Your task to perform on an android device: turn off sleep mode Image 0: 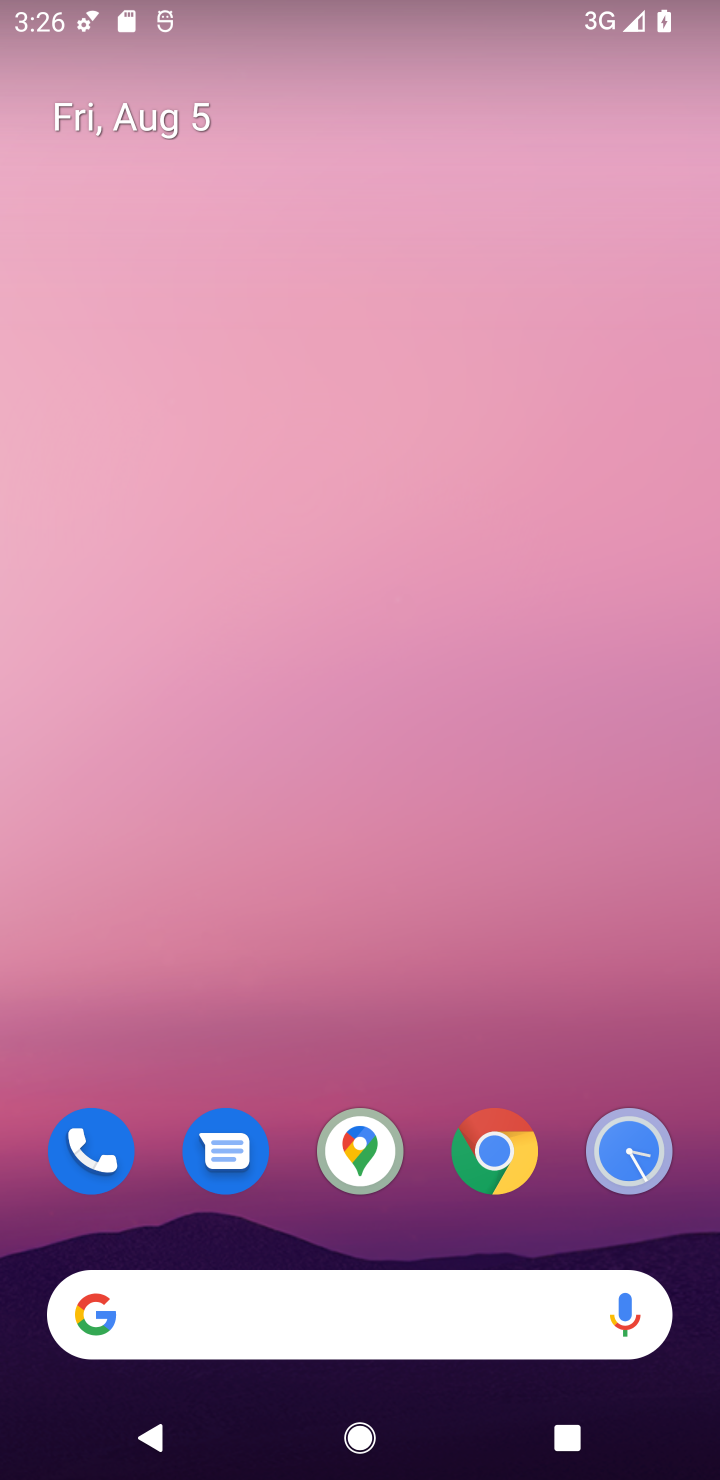
Step 0: drag from (672, 1068) to (693, 393)
Your task to perform on an android device: turn off sleep mode Image 1: 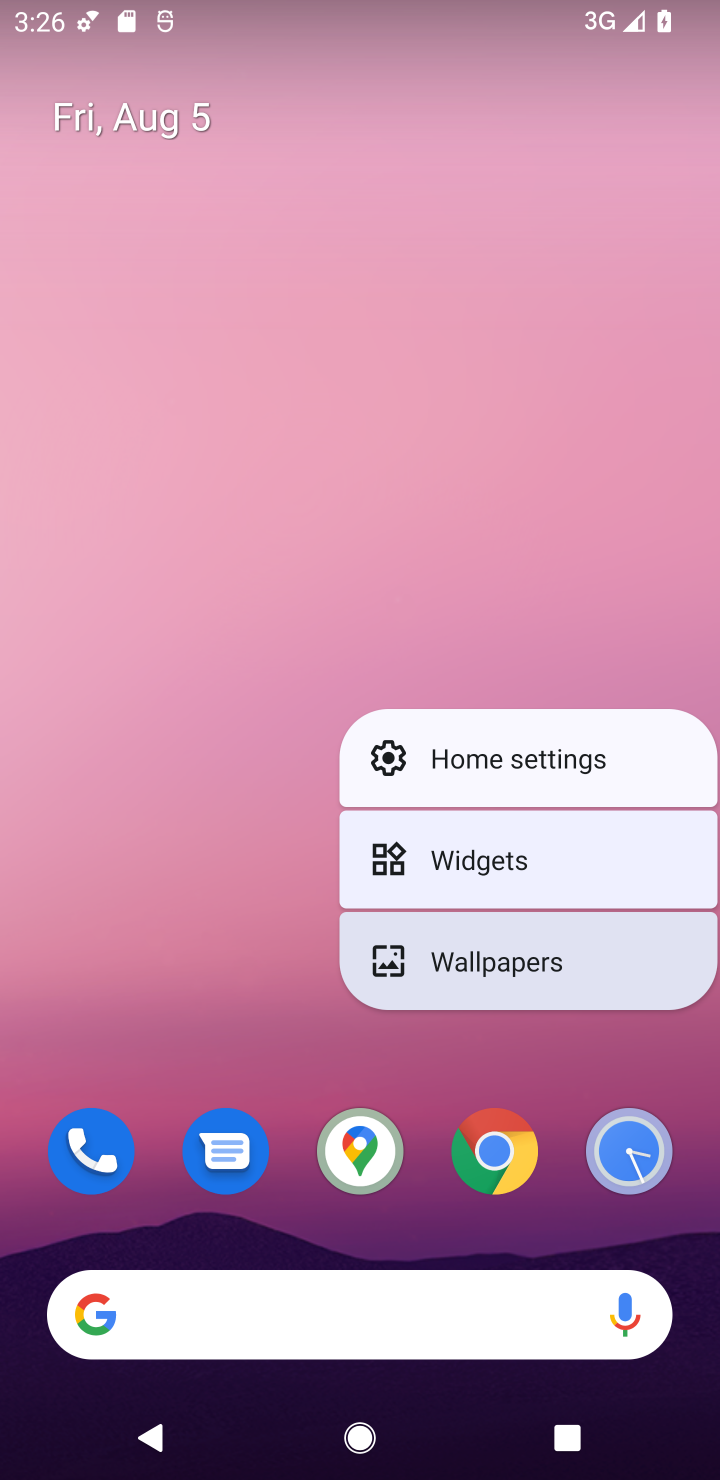
Step 1: click (690, 398)
Your task to perform on an android device: turn off sleep mode Image 2: 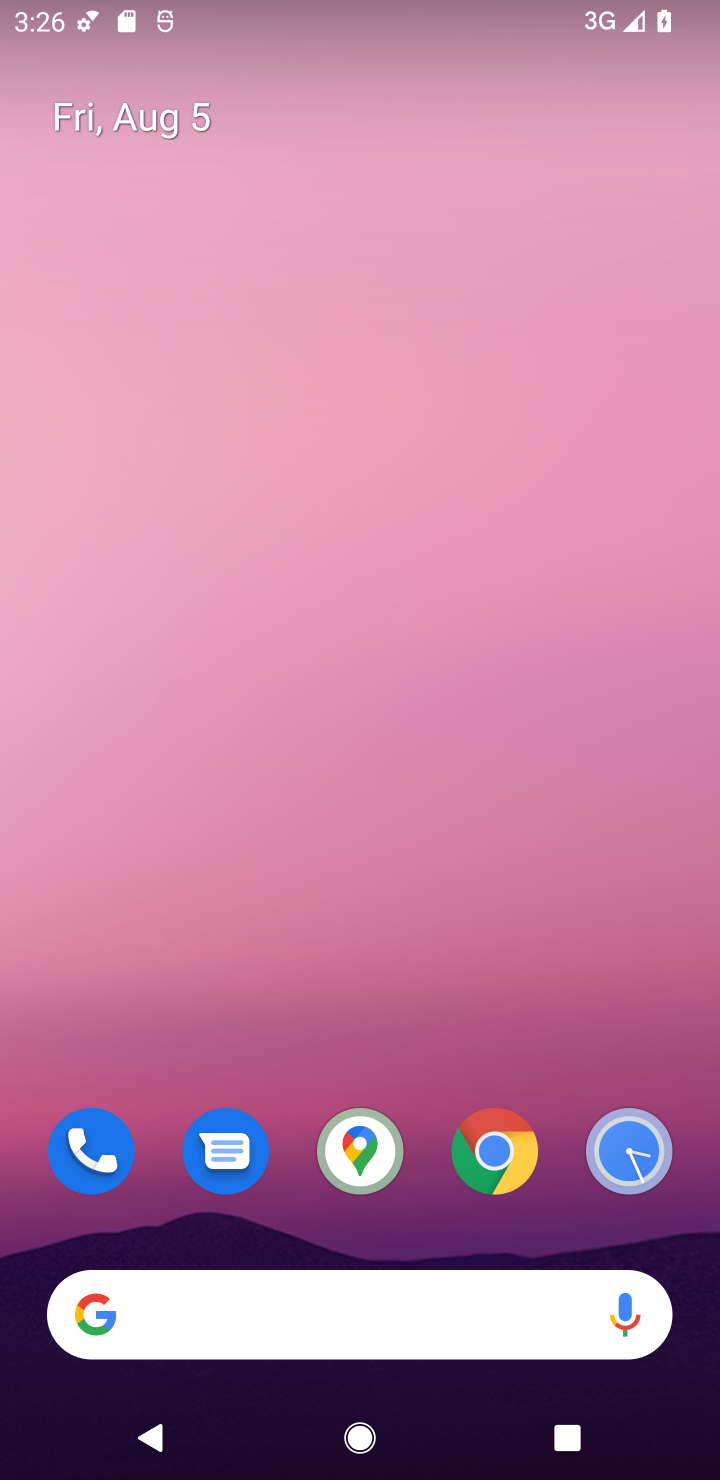
Step 2: drag from (304, 1182) to (394, 167)
Your task to perform on an android device: turn off sleep mode Image 3: 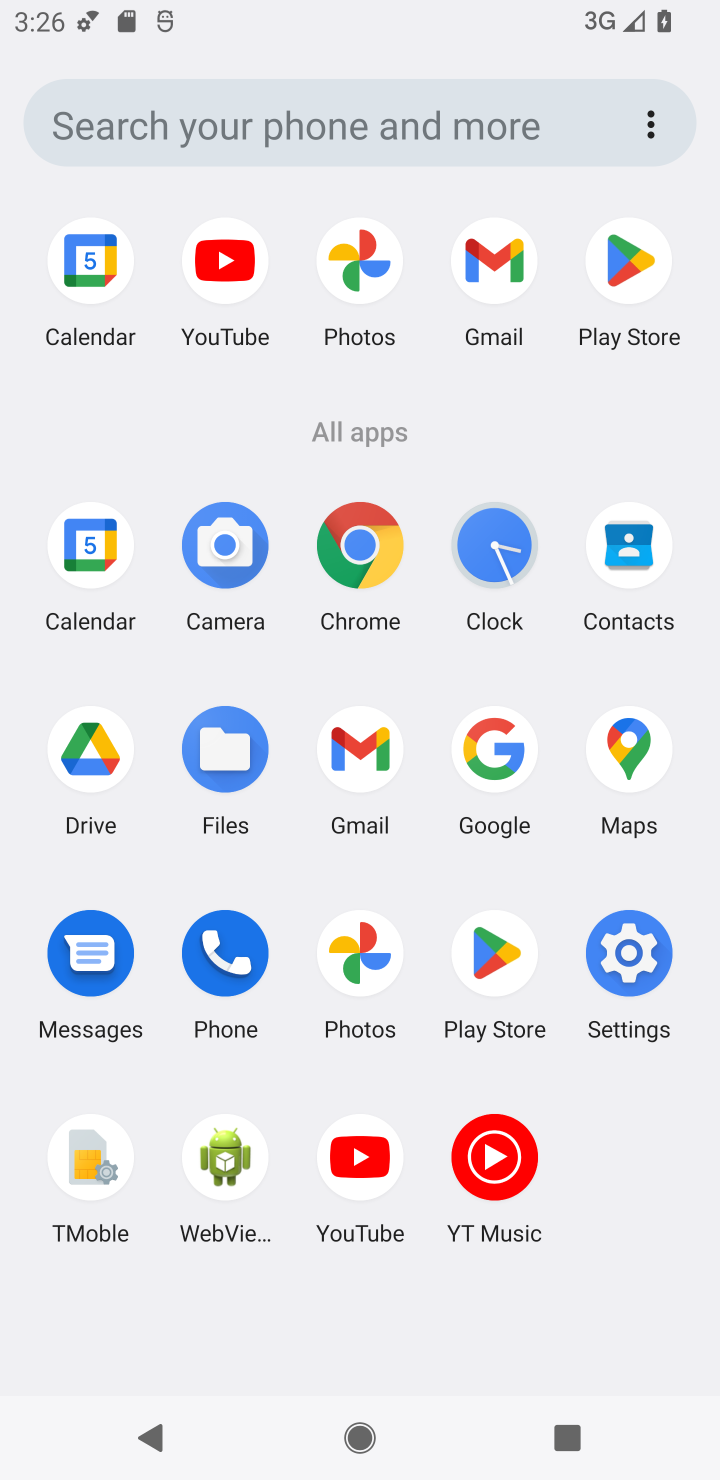
Step 3: click (660, 982)
Your task to perform on an android device: turn off sleep mode Image 4: 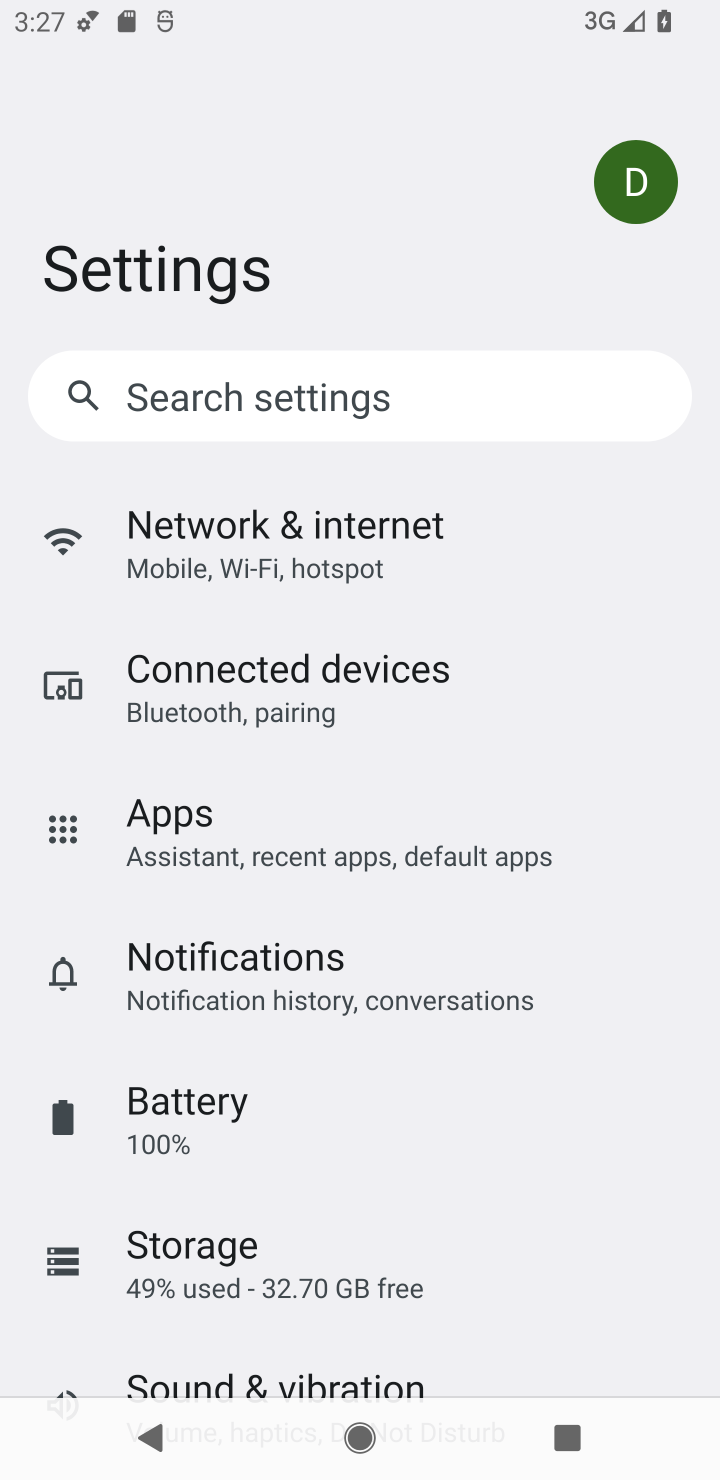
Step 4: drag from (364, 1180) to (377, 411)
Your task to perform on an android device: turn off sleep mode Image 5: 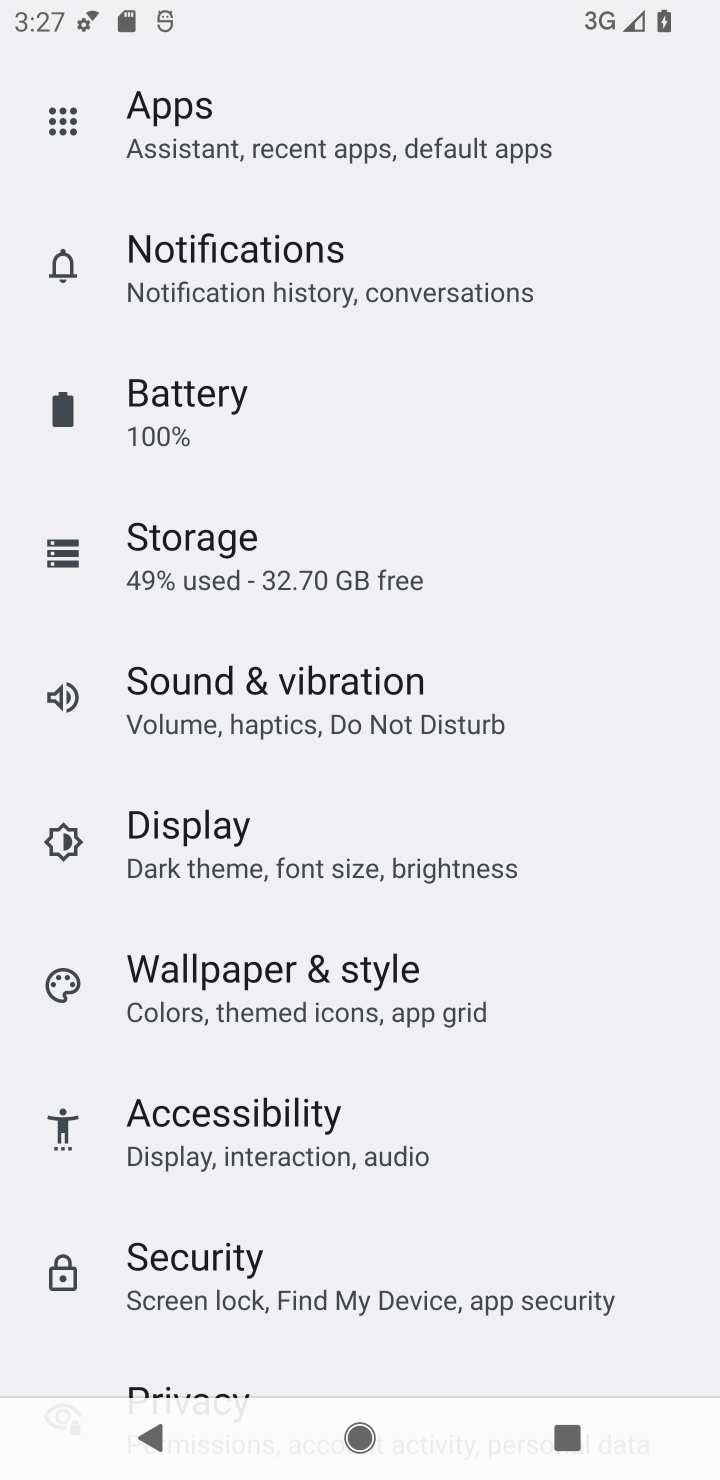
Step 5: click (149, 835)
Your task to perform on an android device: turn off sleep mode Image 6: 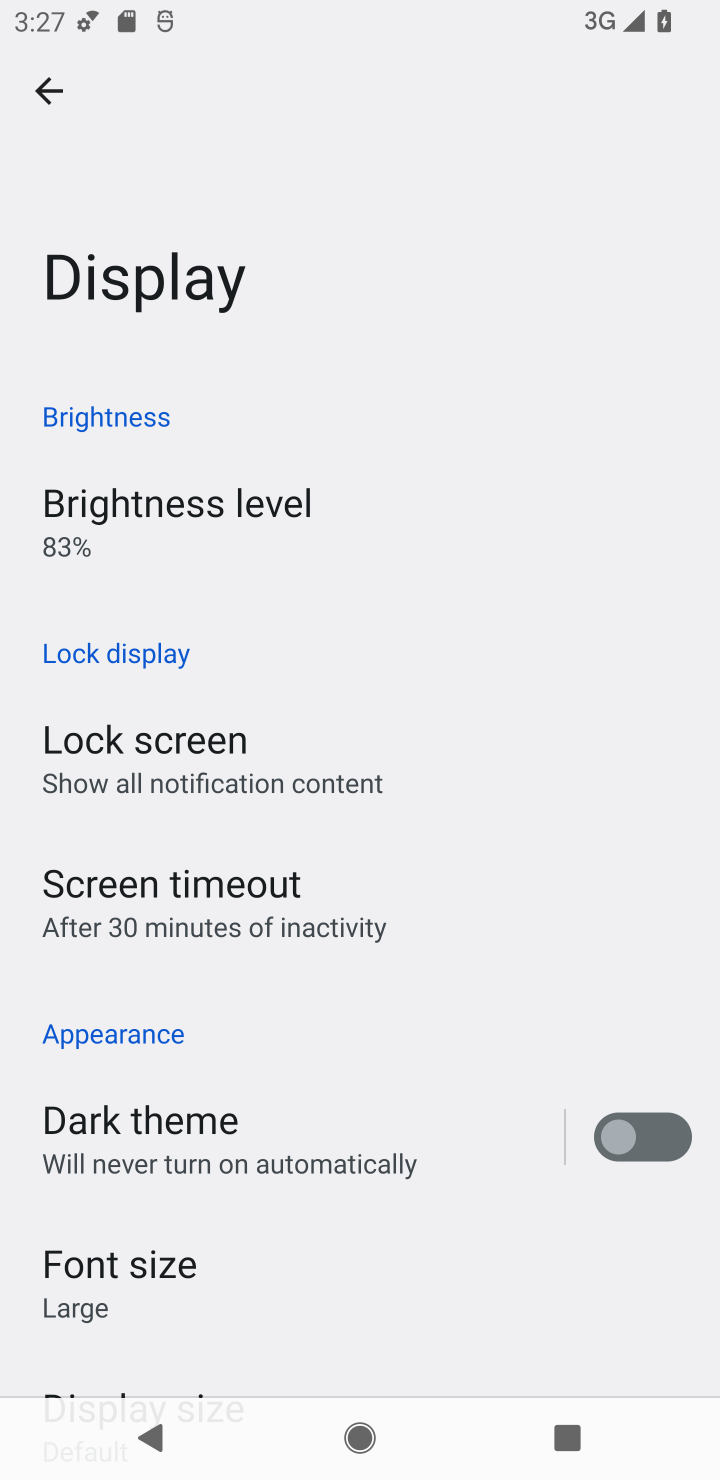
Step 6: task complete